Your task to perform on an android device: Search for a new desk on IKEA. Image 0: 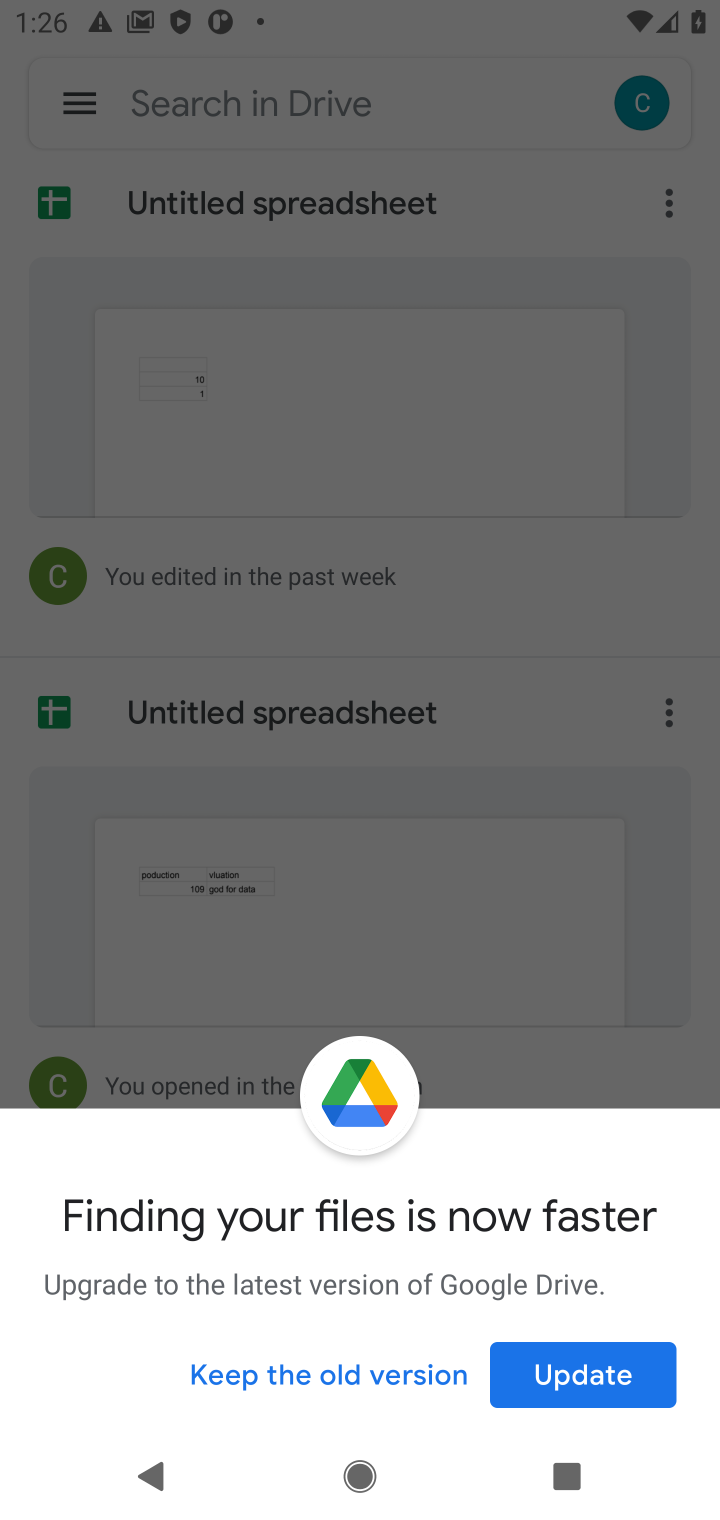
Step 0: press home button
Your task to perform on an android device: Search for a new desk on IKEA. Image 1: 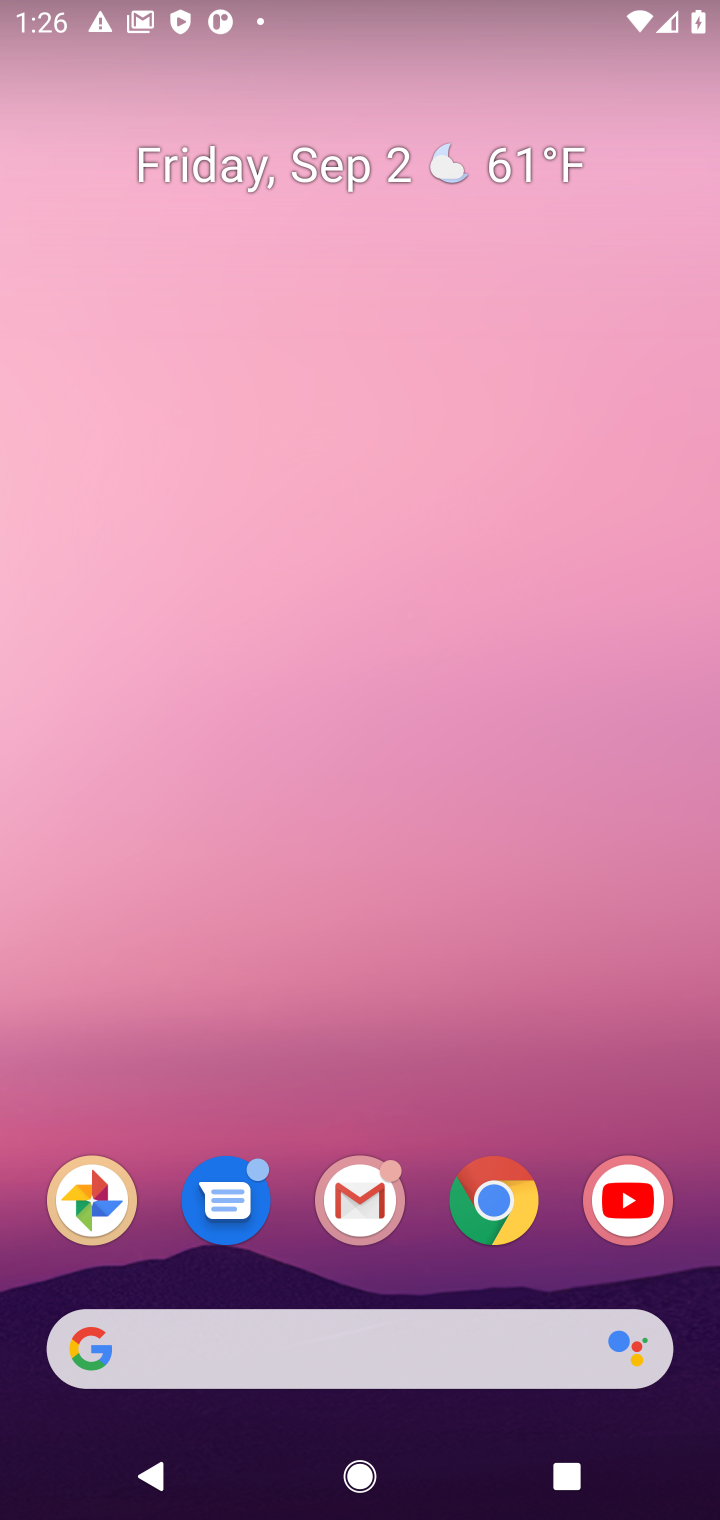
Step 1: click (484, 1207)
Your task to perform on an android device: Search for a new desk on IKEA. Image 2: 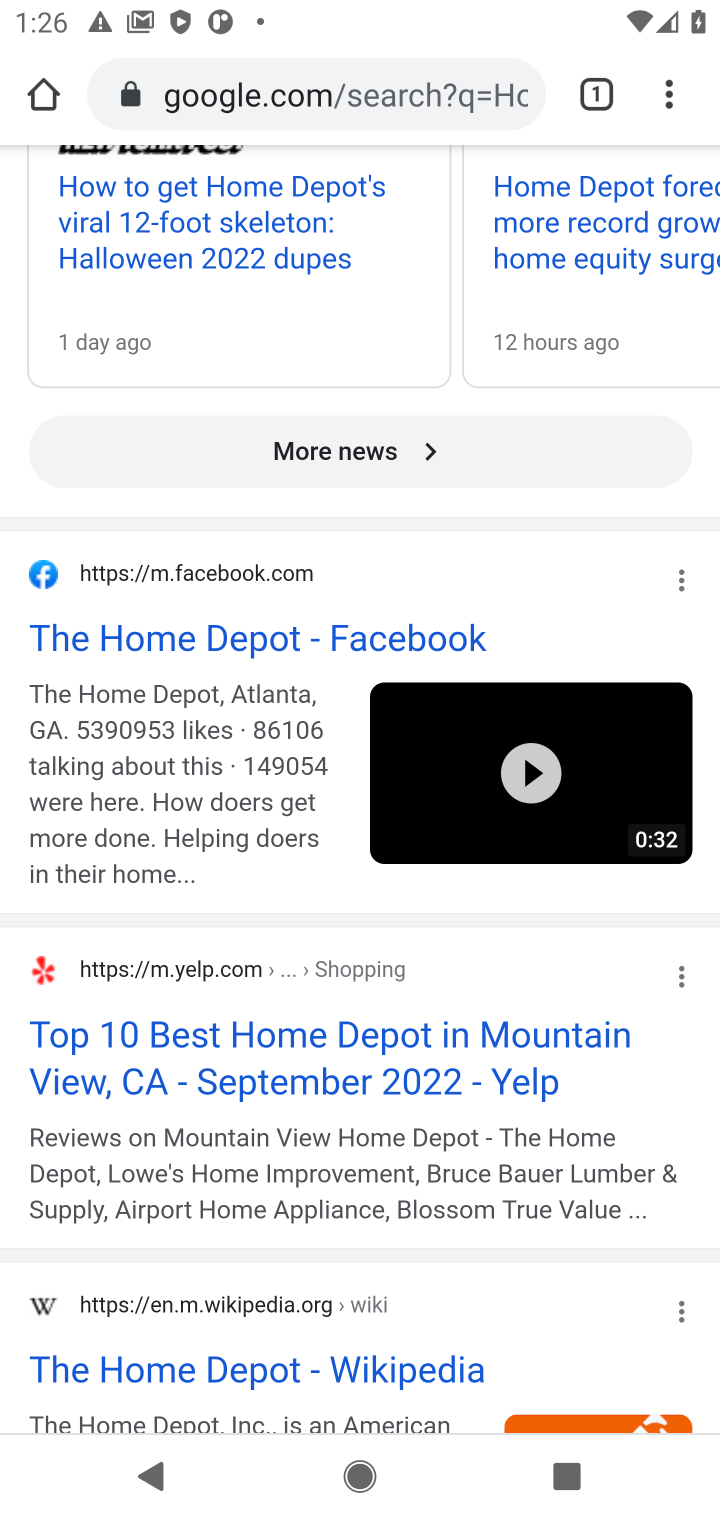
Step 2: click (402, 83)
Your task to perform on an android device: Search for a new desk on IKEA. Image 3: 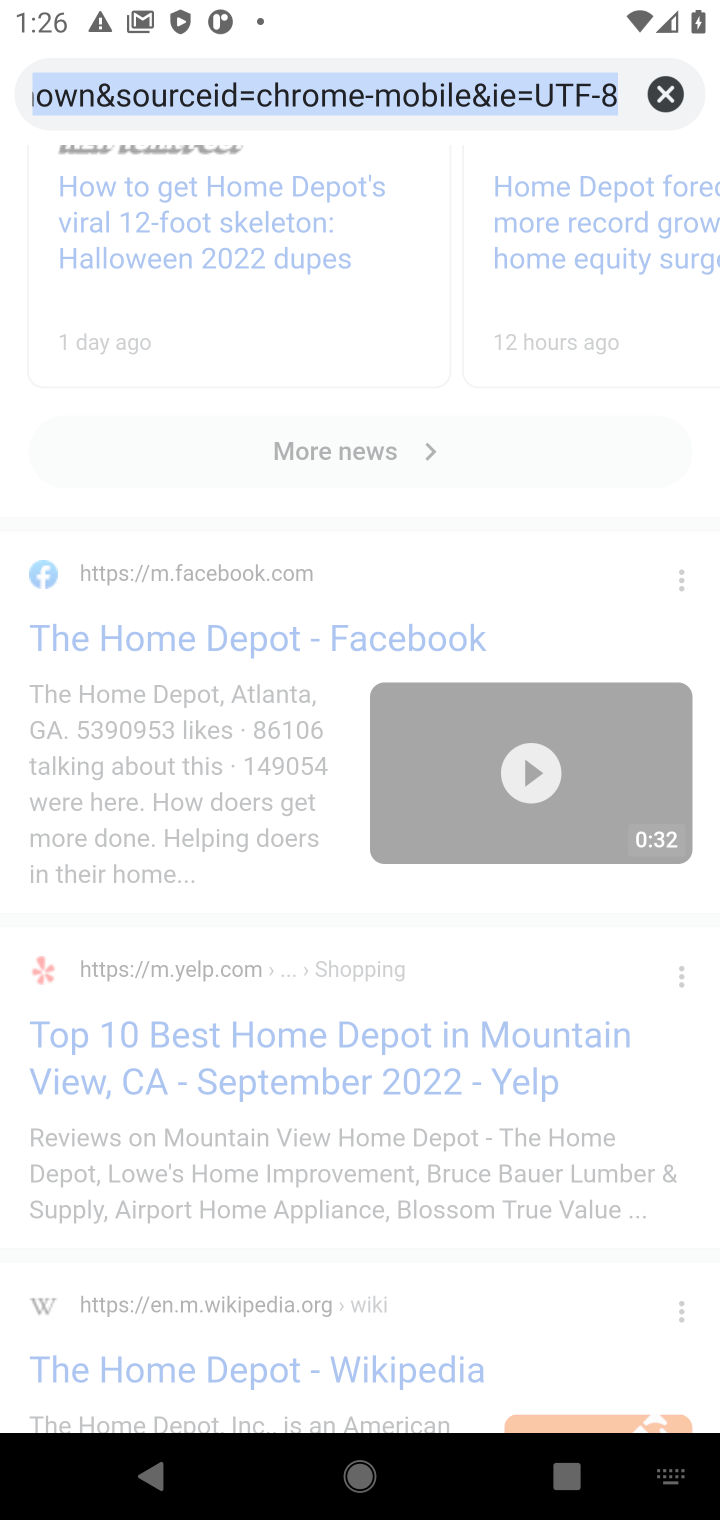
Step 3: click (665, 79)
Your task to perform on an android device: Search for a new desk on IKEA. Image 4: 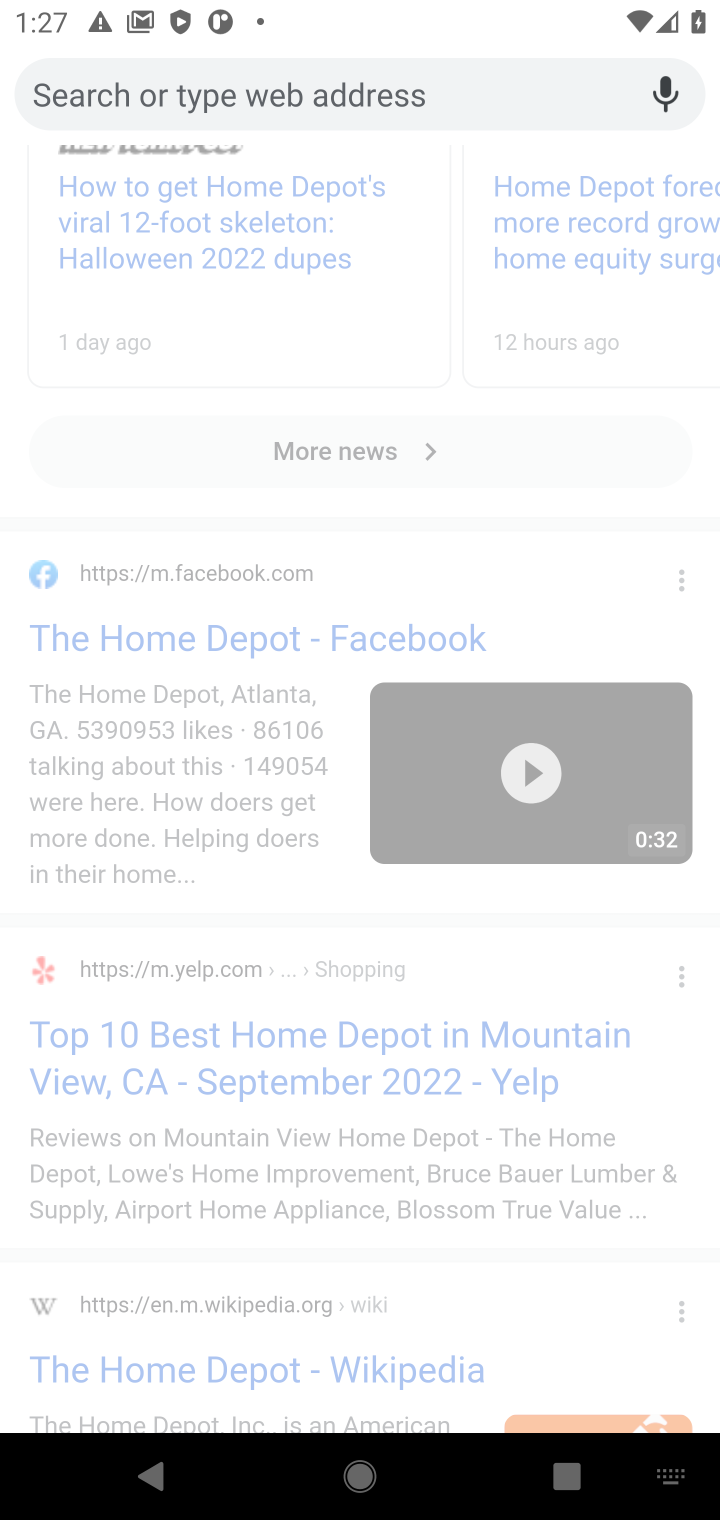
Step 4: press enter
Your task to perform on an android device: Search for a new desk on IKEA. Image 5: 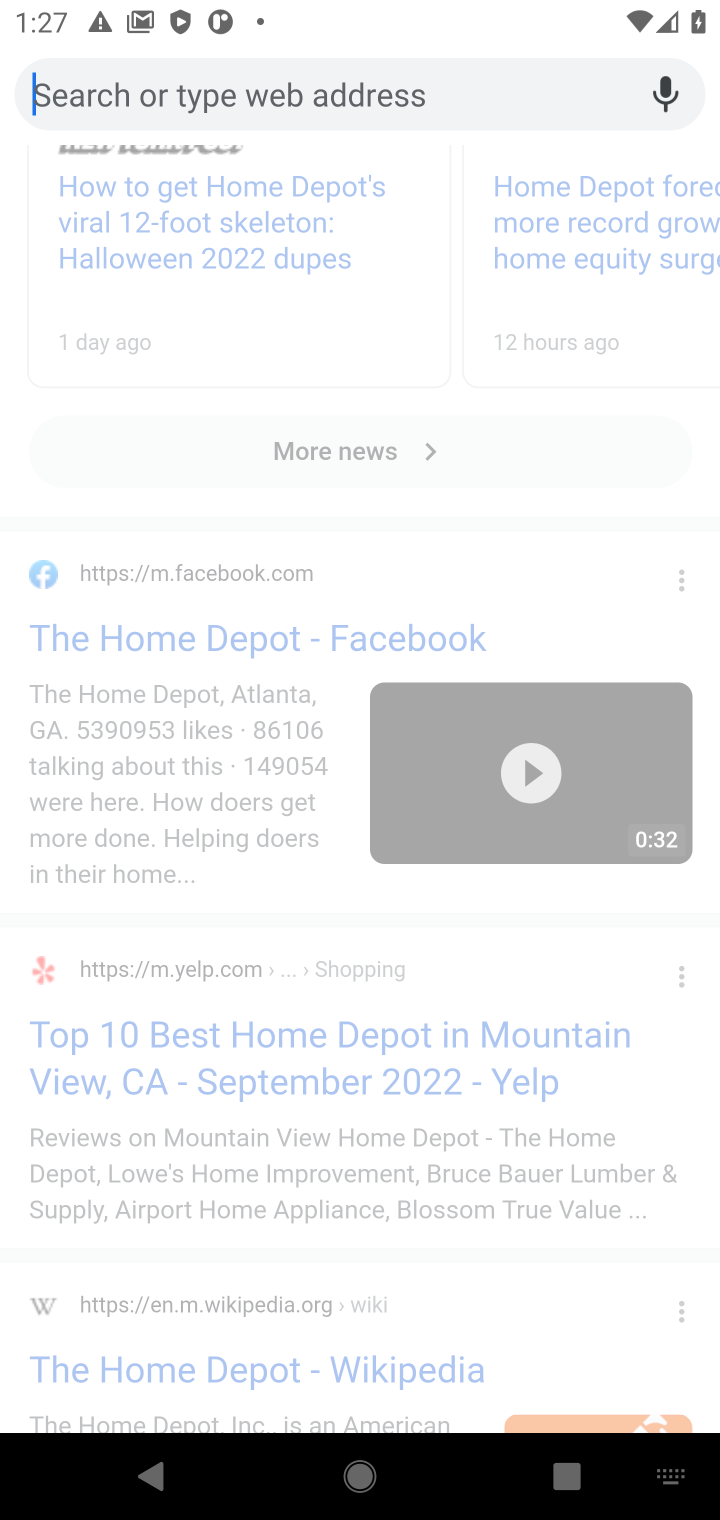
Step 5: type "IKEA"
Your task to perform on an android device: Search for a new desk on IKEA. Image 6: 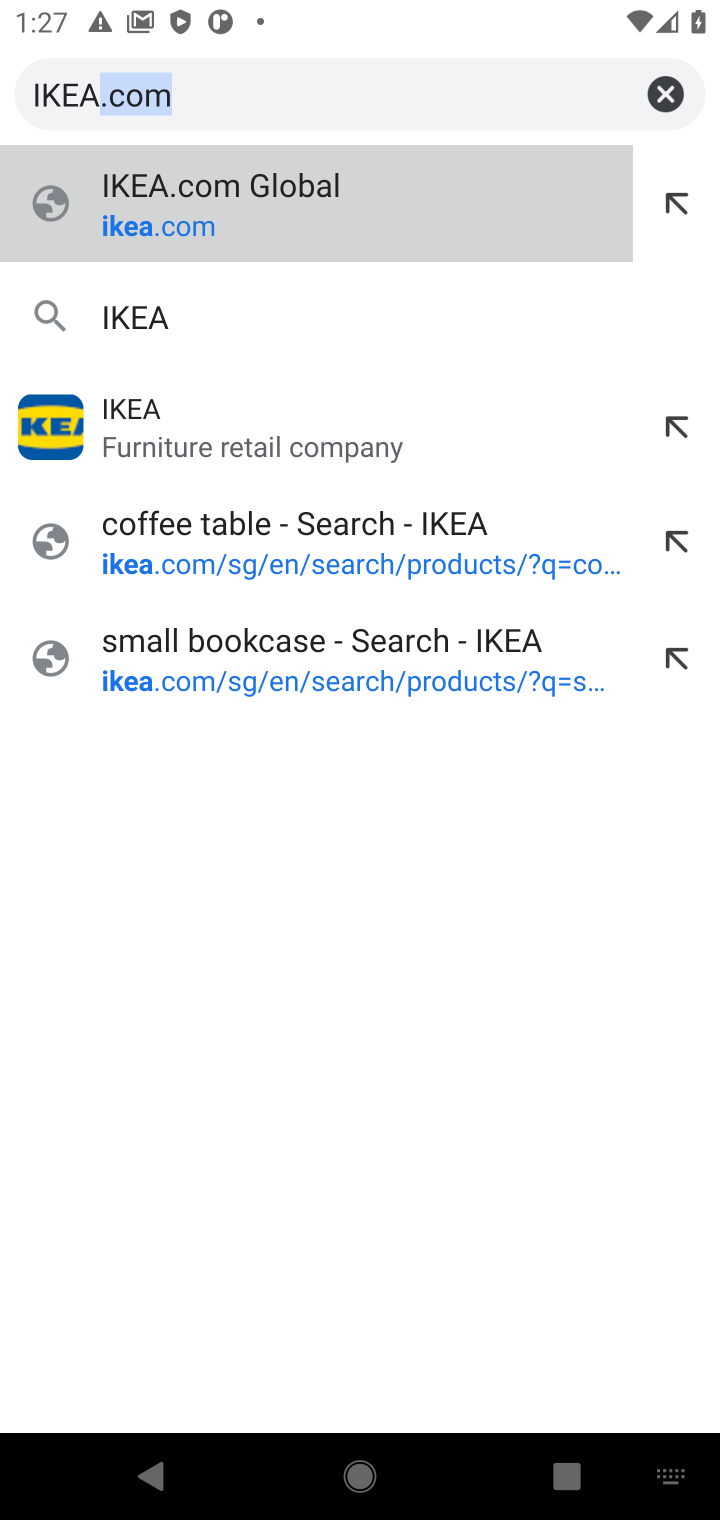
Step 6: click (208, 329)
Your task to perform on an android device: Search for a new desk on IKEA. Image 7: 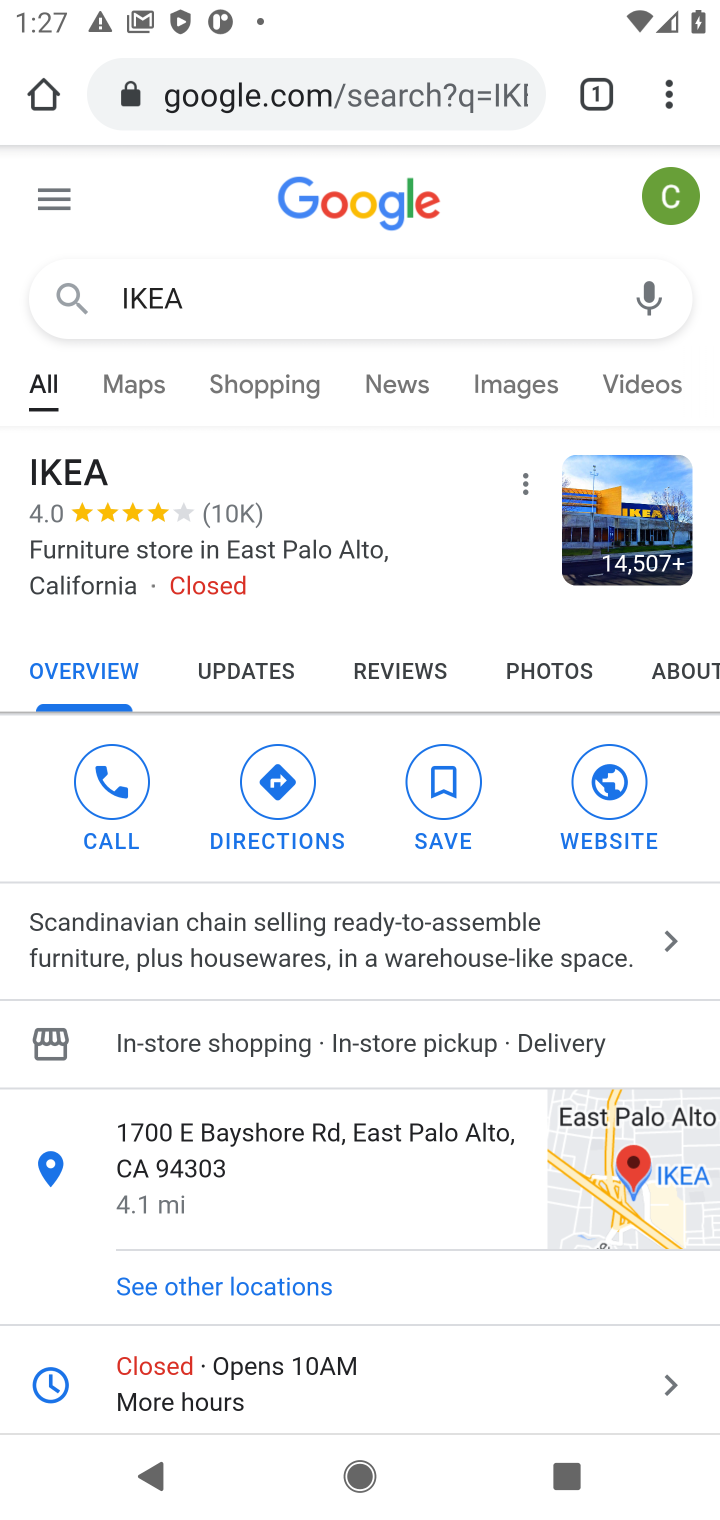
Step 7: drag from (414, 1213) to (659, 271)
Your task to perform on an android device: Search for a new desk on IKEA. Image 8: 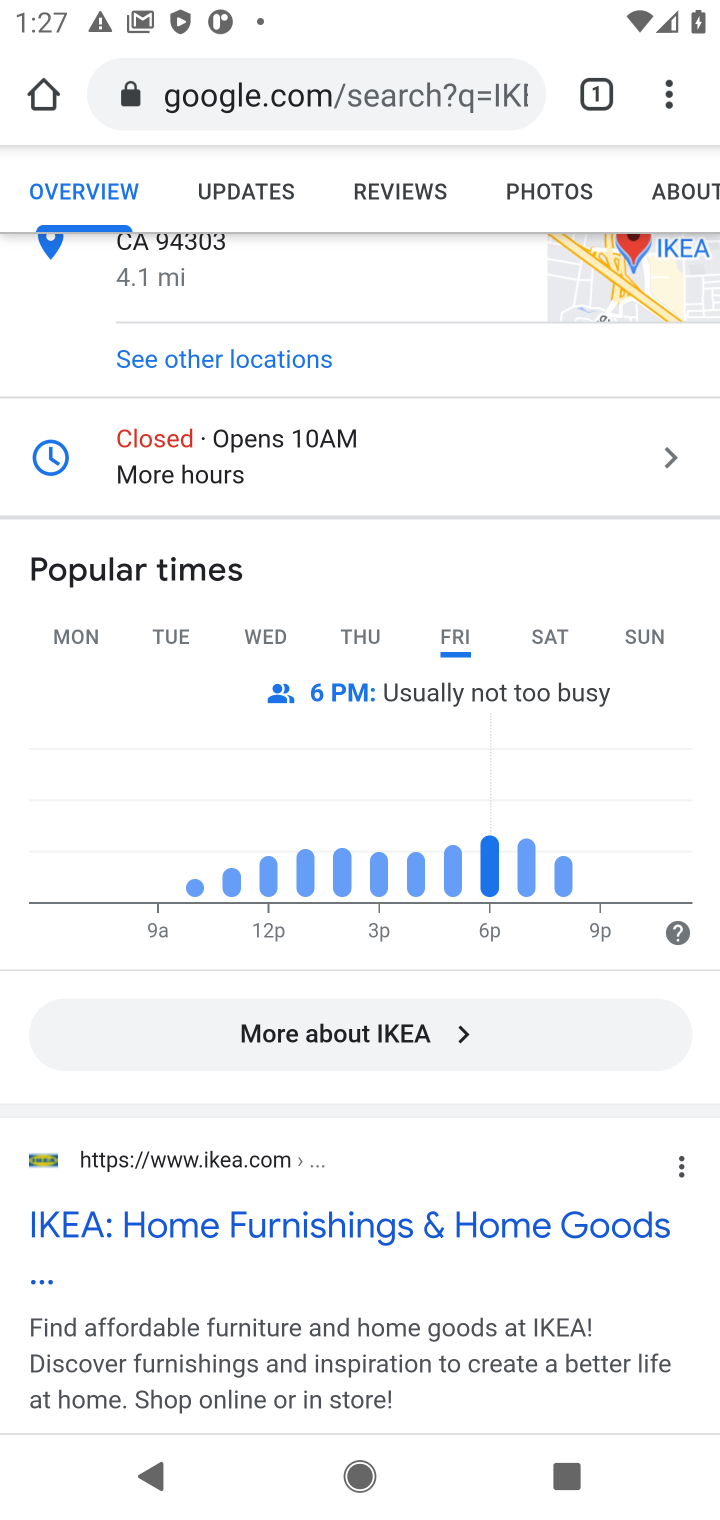
Step 8: click (306, 1227)
Your task to perform on an android device: Search for a new desk on IKEA. Image 9: 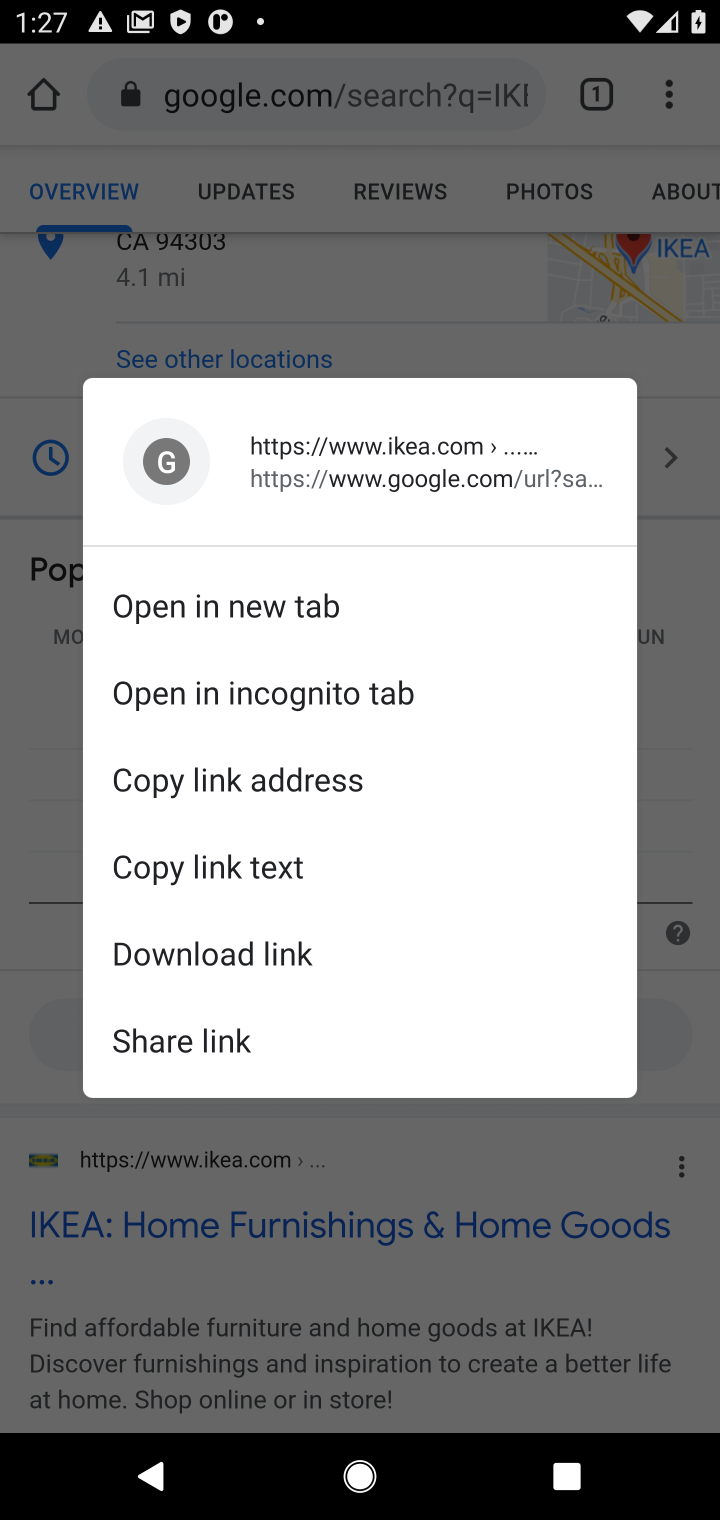
Step 9: click (544, 1245)
Your task to perform on an android device: Search for a new desk on IKEA. Image 10: 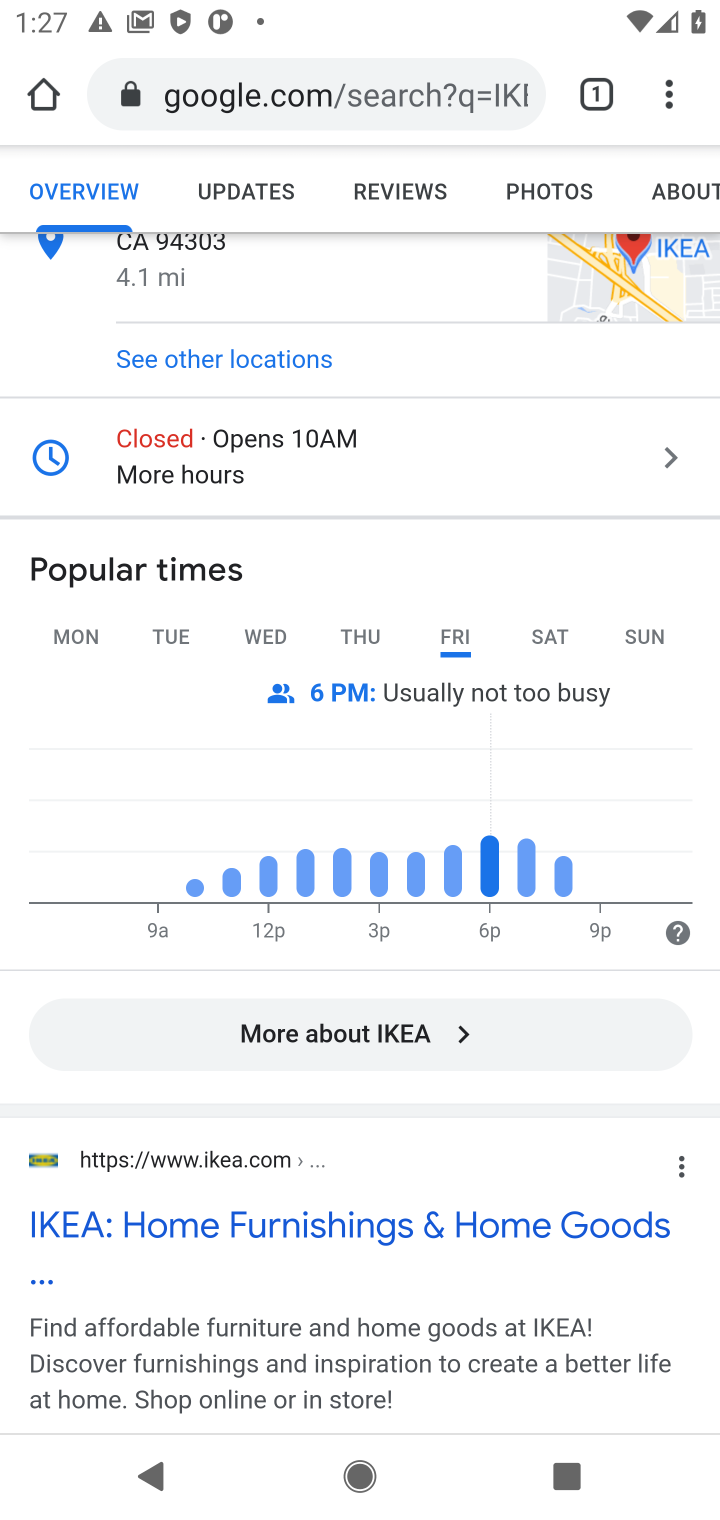
Step 10: click (527, 1215)
Your task to perform on an android device: Search for a new desk on IKEA. Image 11: 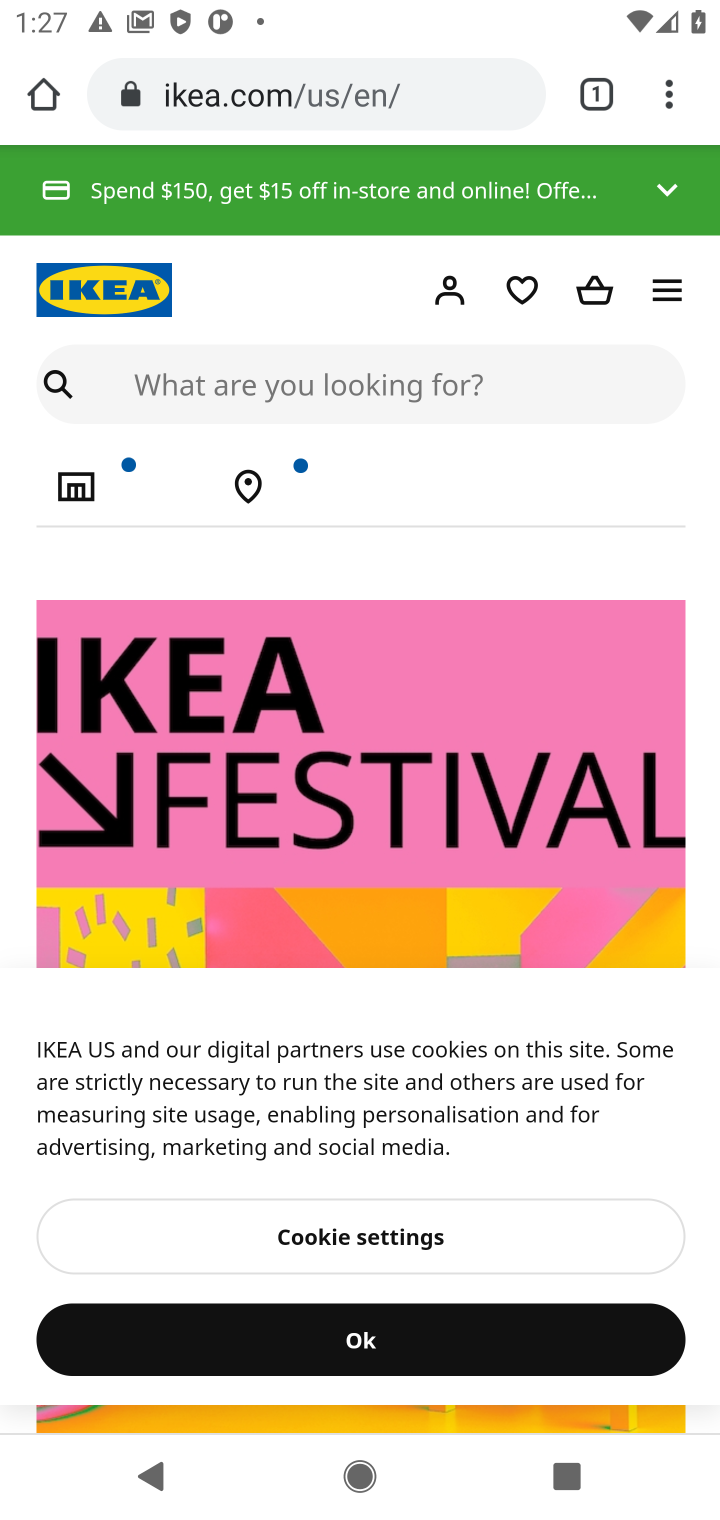
Step 11: click (442, 389)
Your task to perform on an android device: Search for a new desk on IKEA. Image 12: 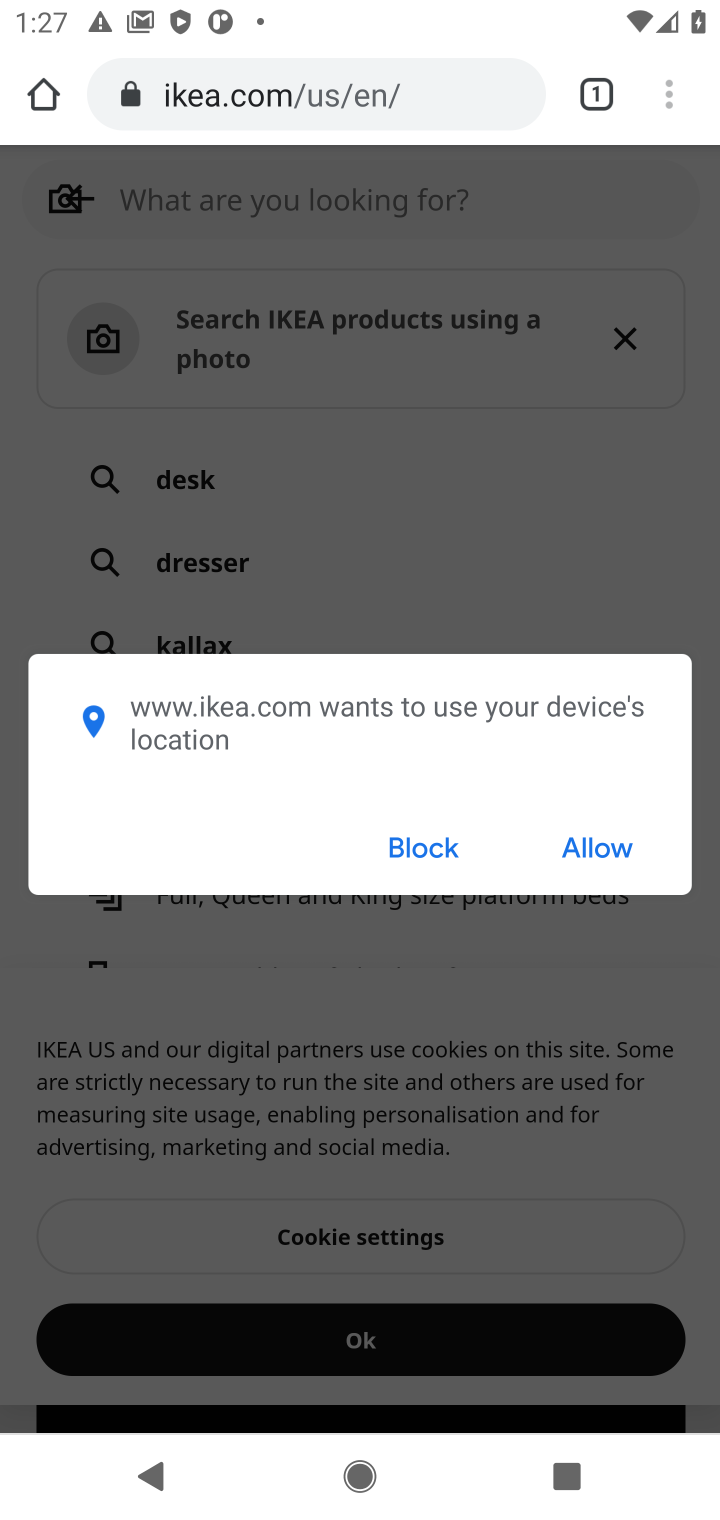
Step 12: type "new desk"
Your task to perform on an android device: Search for a new desk on IKEA. Image 13: 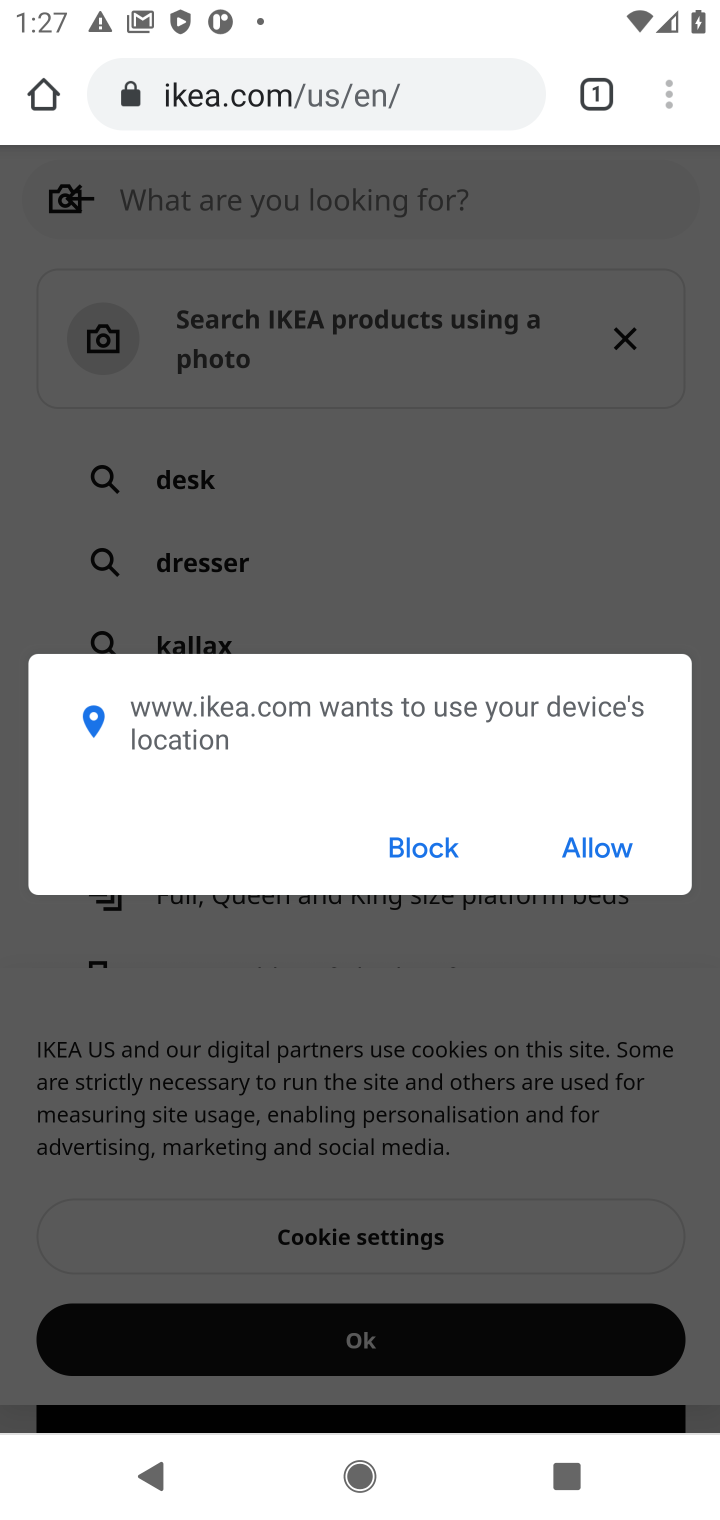
Step 13: click (443, 853)
Your task to perform on an android device: Search for a new desk on IKEA. Image 14: 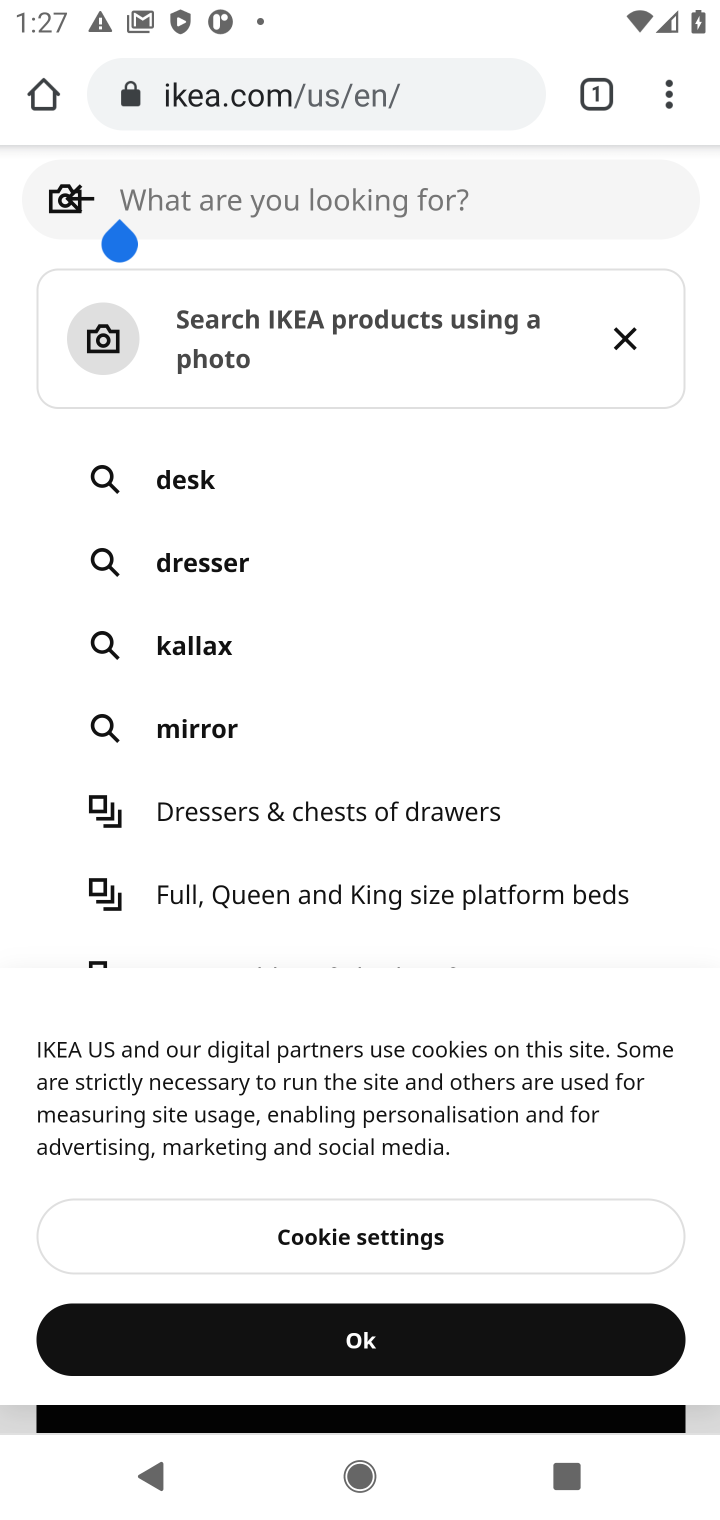
Step 14: type "new desk"
Your task to perform on an android device: Search for a new desk on IKEA. Image 15: 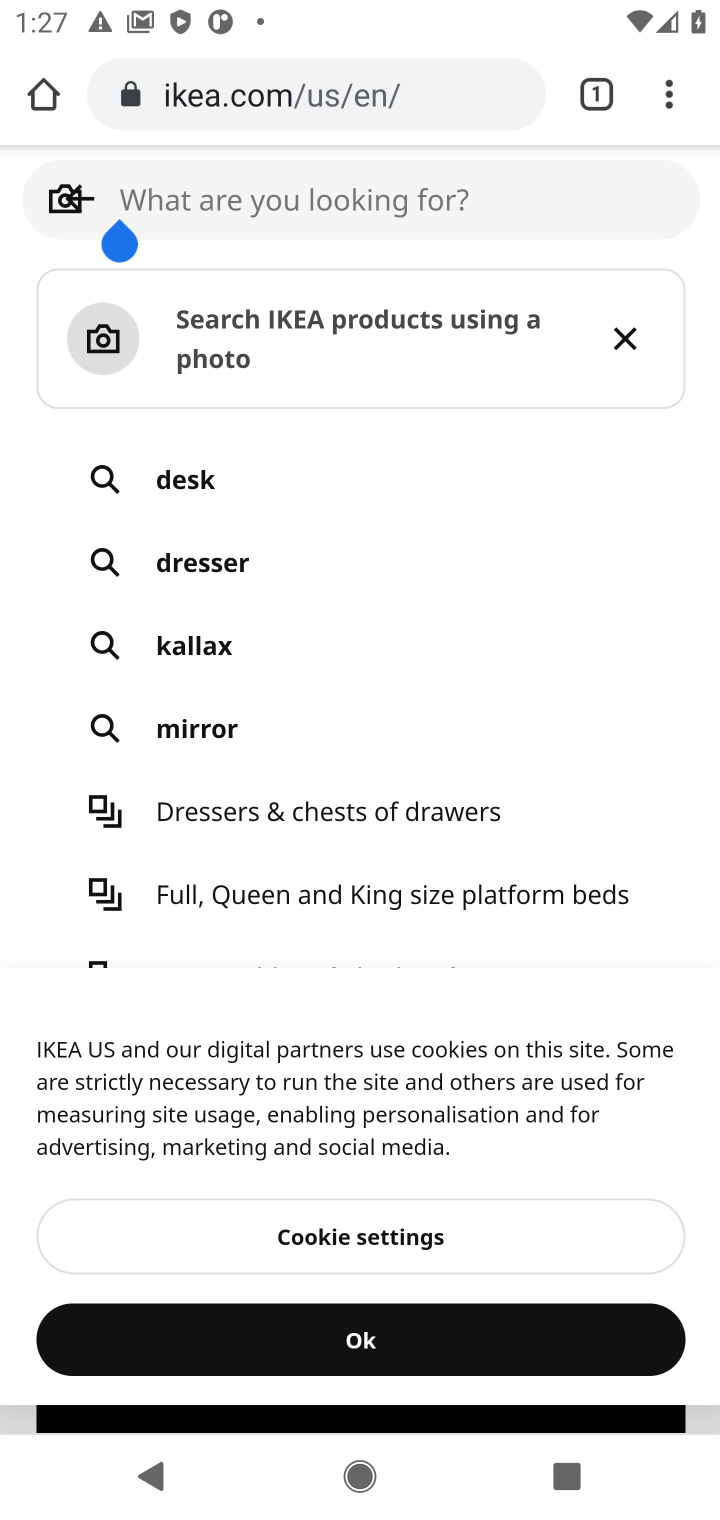
Step 15: press enter
Your task to perform on an android device: Search for a new desk on IKEA. Image 16: 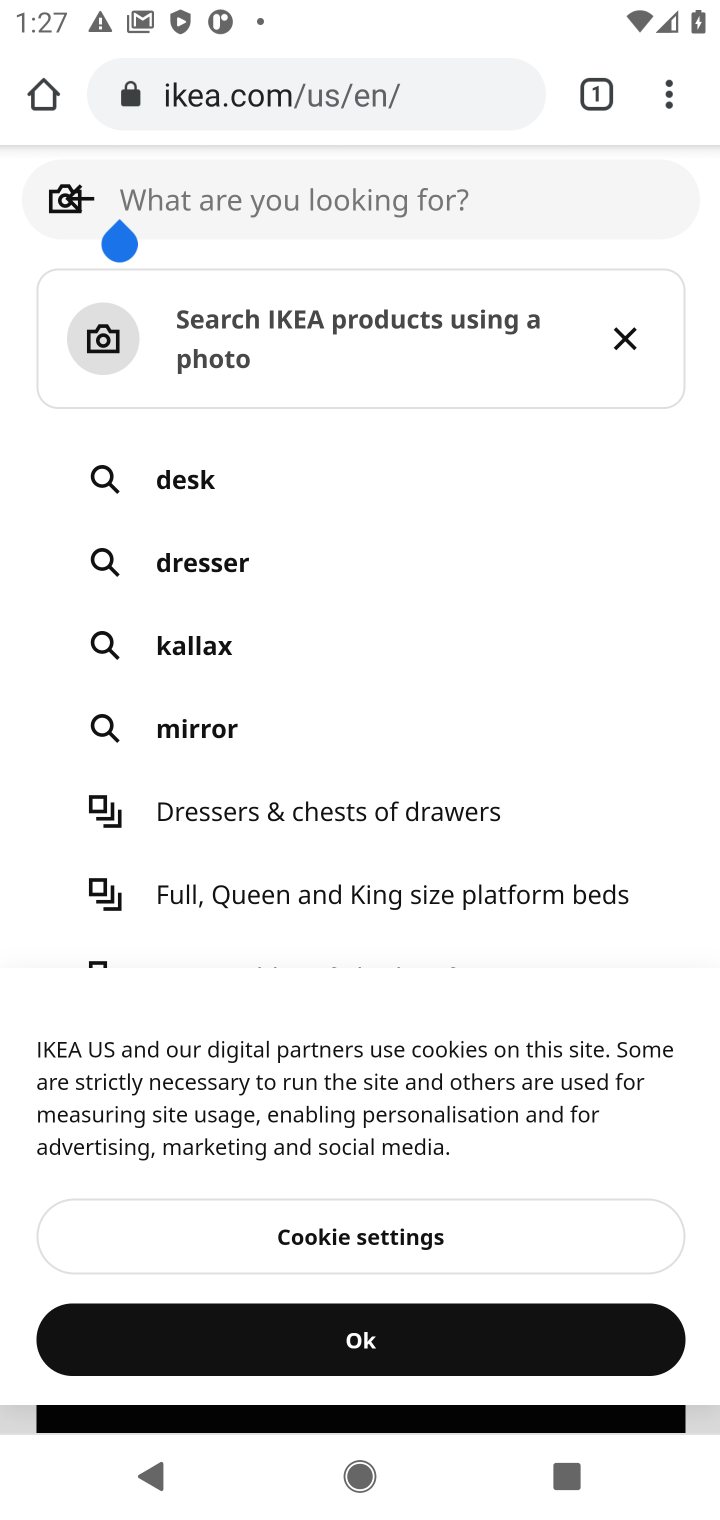
Step 16: click (187, 223)
Your task to perform on an android device: Search for a new desk on IKEA. Image 17: 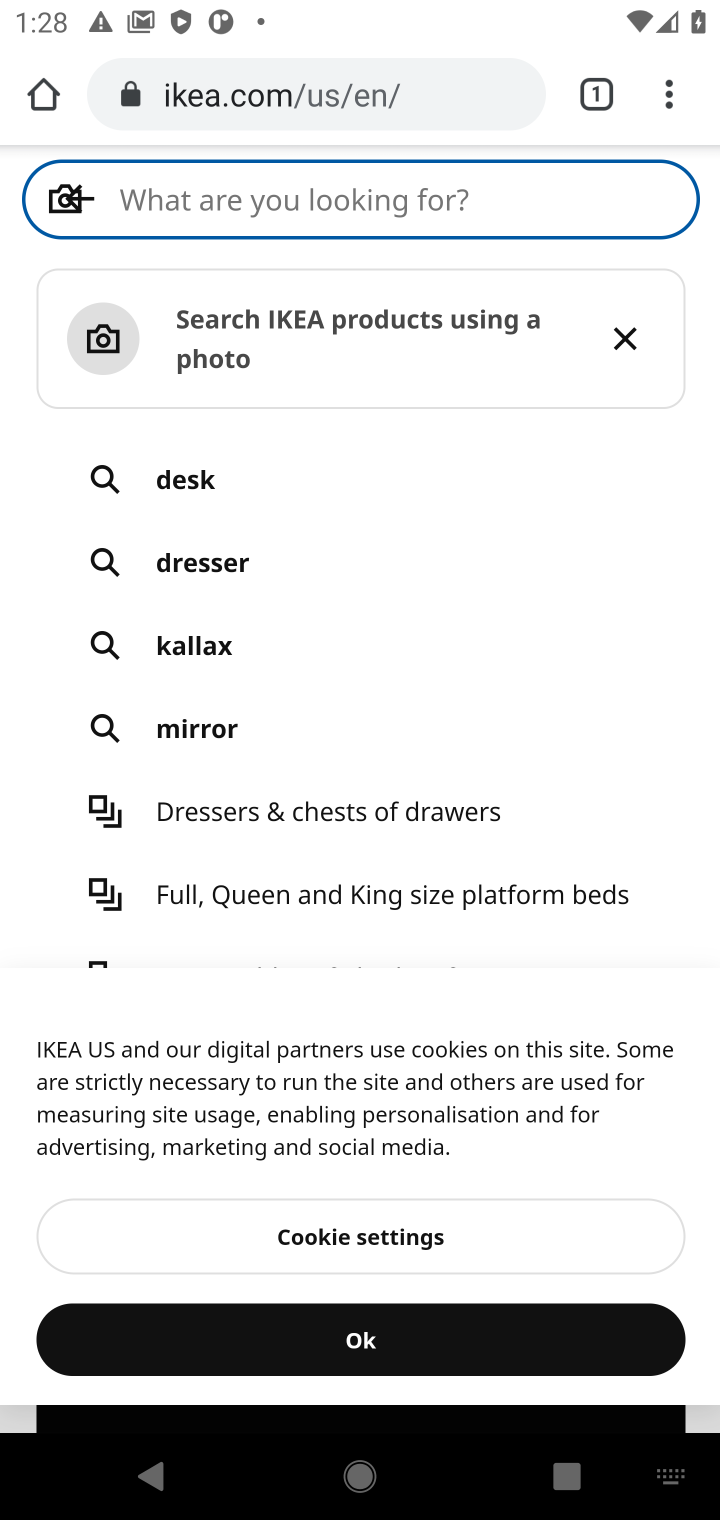
Step 17: type "new desk"
Your task to perform on an android device: Search for a new desk on IKEA. Image 18: 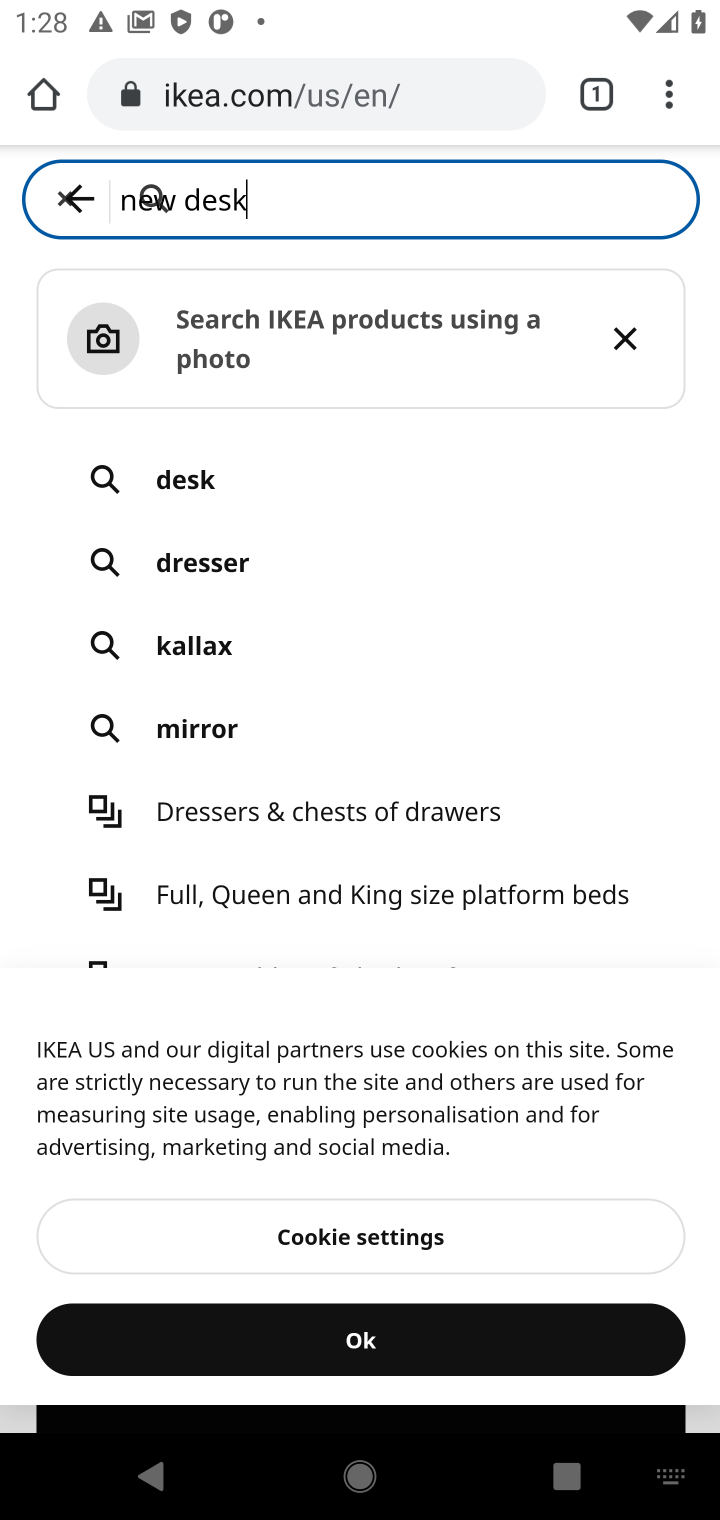
Step 18: press enter
Your task to perform on an android device: Search for a new desk on IKEA. Image 19: 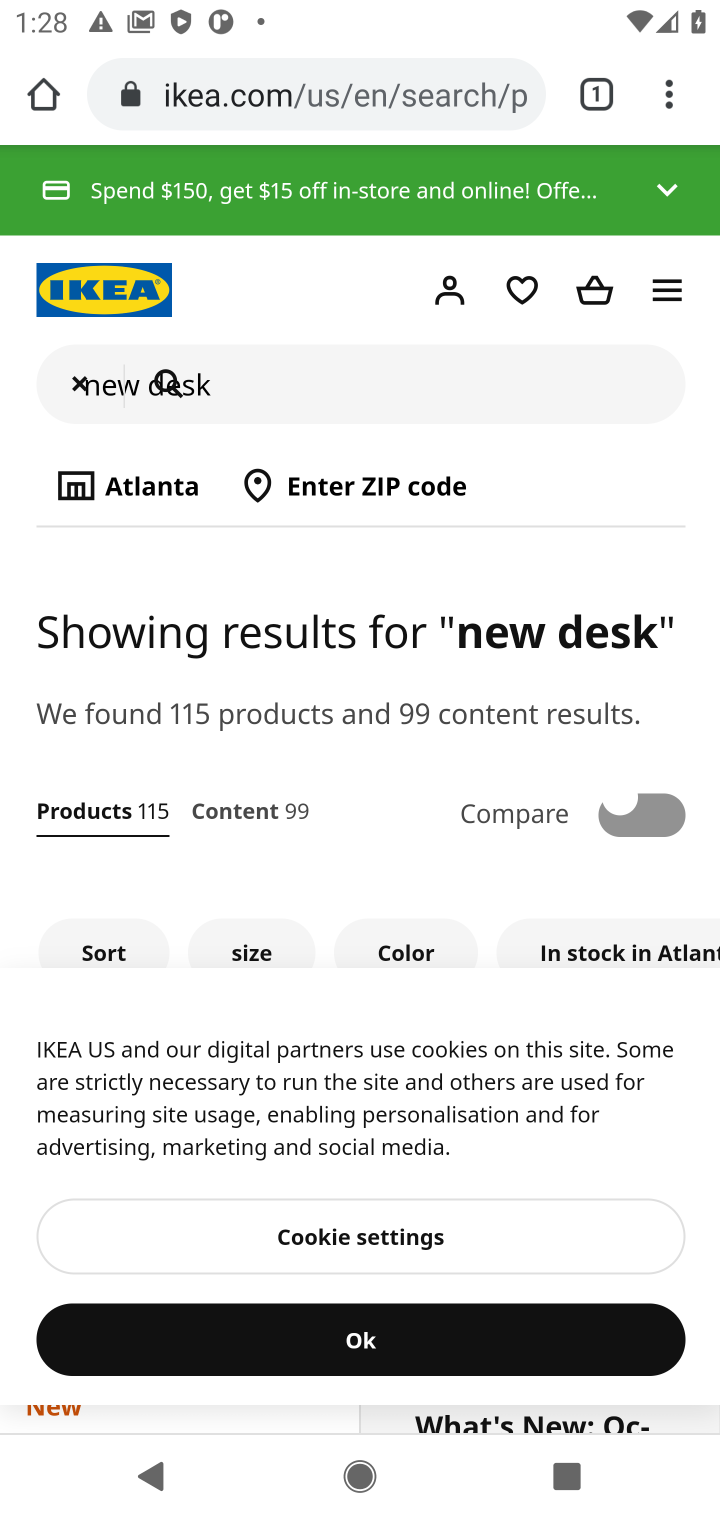
Step 19: click (361, 1349)
Your task to perform on an android device: Search for a new desk on IKEA. Image 20: 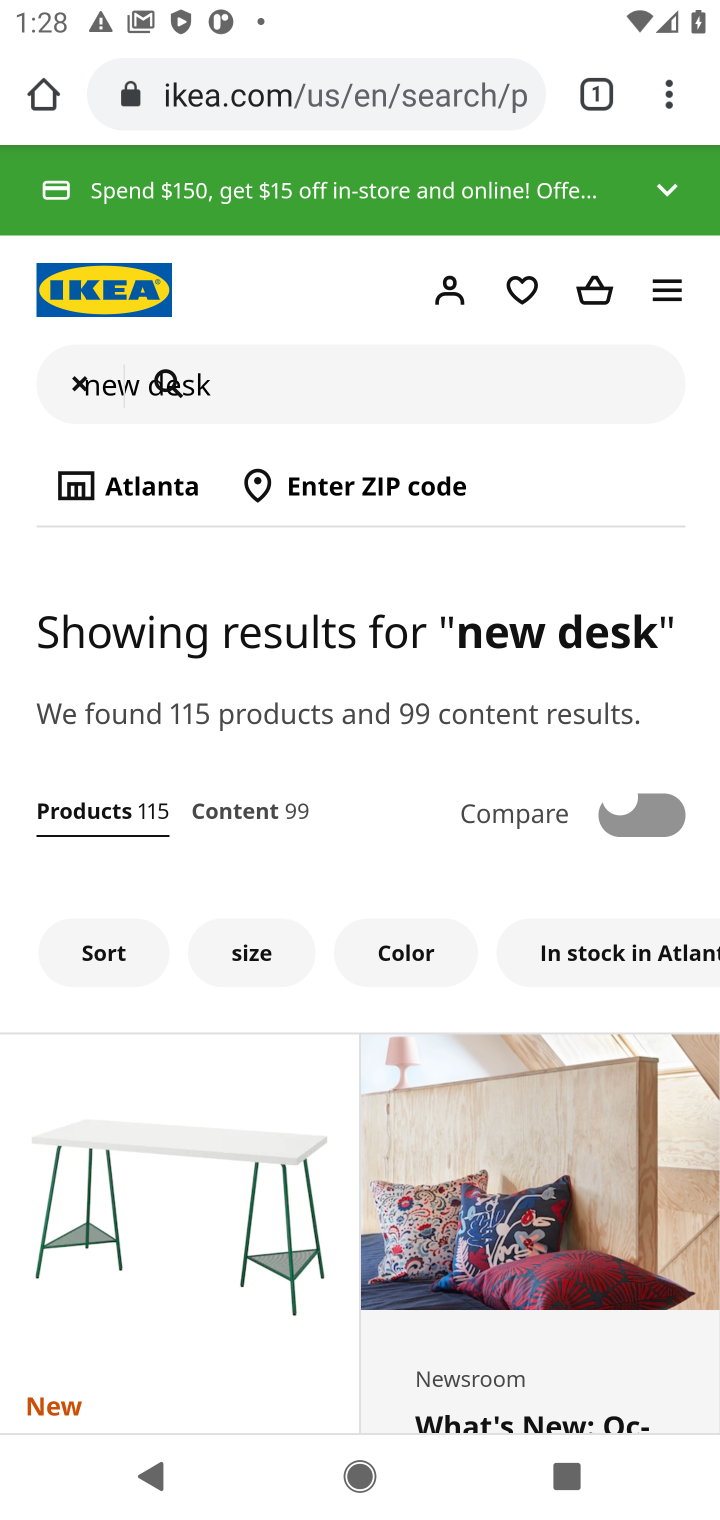
Step 20: task complete